Your task to perform on an android device: turn off location Image 0: 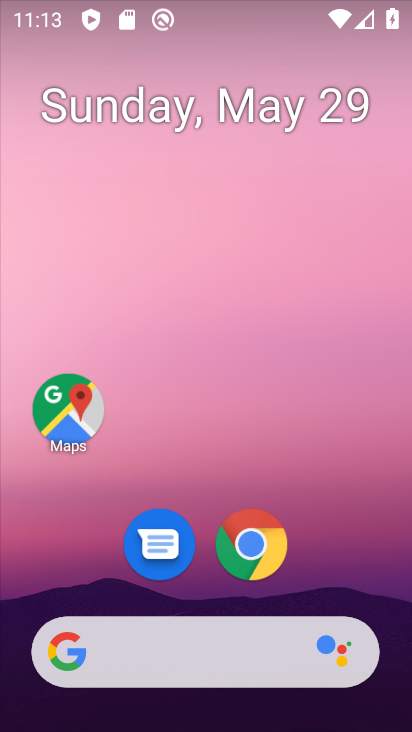
Step 0: press home button
Your task to perform on an android device: turn off location Image 1: 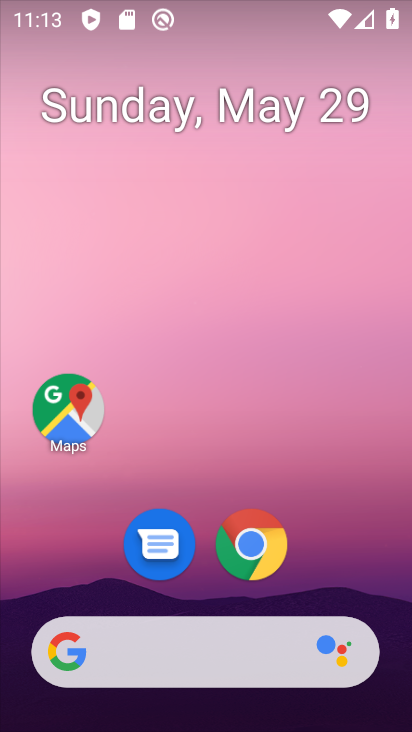
Step 1: drag from (205, 591) to (208, 164)
Your task to perform on an android device: turn off location Image 2: 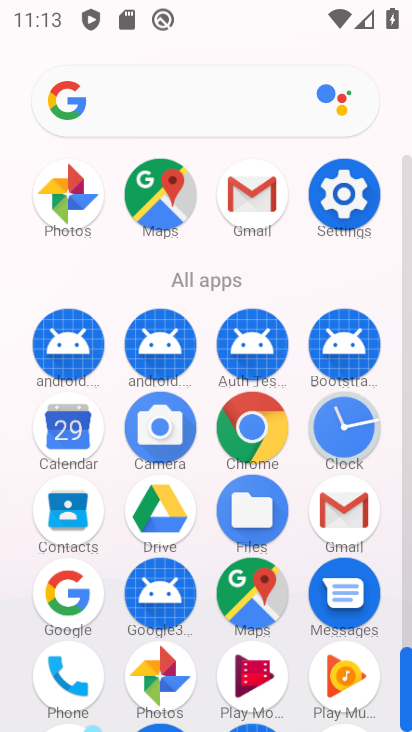
Step 2: click (340, 186)
Your task to perform on an android device: turn off location Image 3: 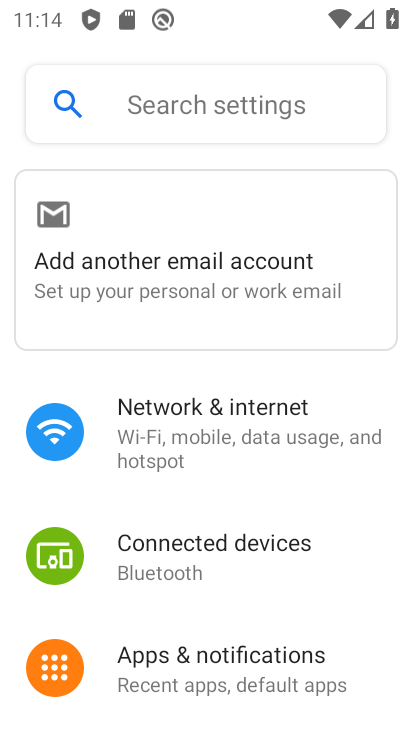
Step 3: drag from (209, 642) to (213, 248)
Your task to perform on an android device: turn off location Image 4: 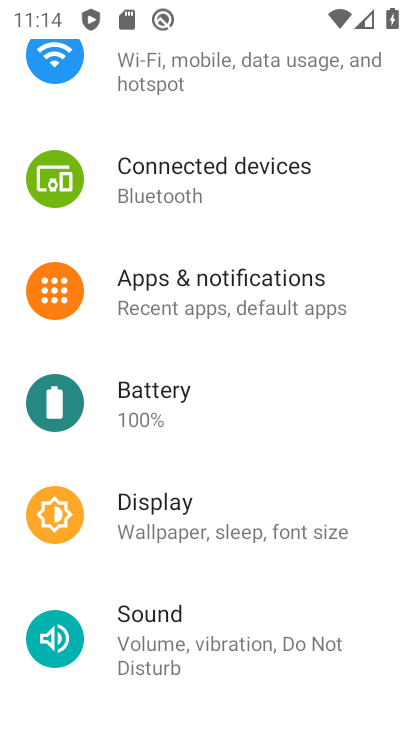
Step 4: drag from (203, 660) to (203, 268)
Your task to perform on an android device: turn off location Image 5: 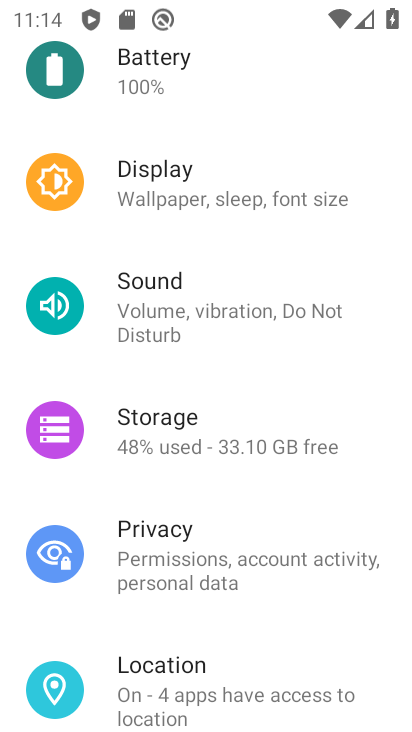
Step 5: click (226, 667)
Your task to perform on an android device: turn off location Image 6: 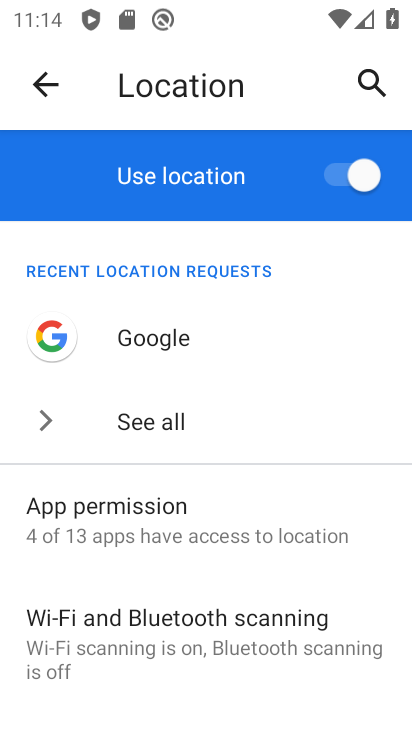
Step 6: click (341, 169)
Your task to perform on an android device: turn off location Image 7: 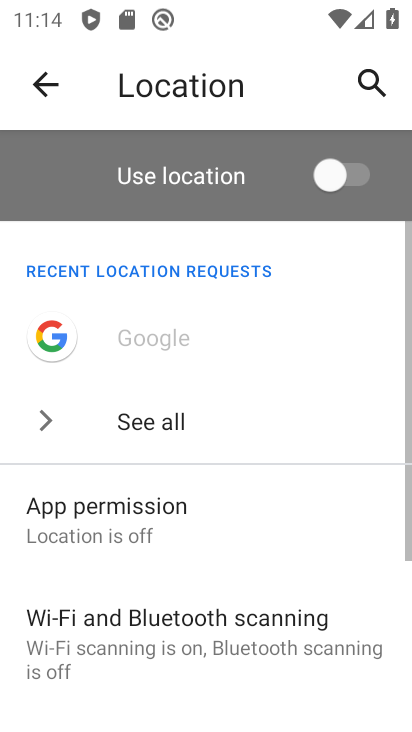
Step 7: task complete